Your task to perform on an android device: Open my contact list Image 0: 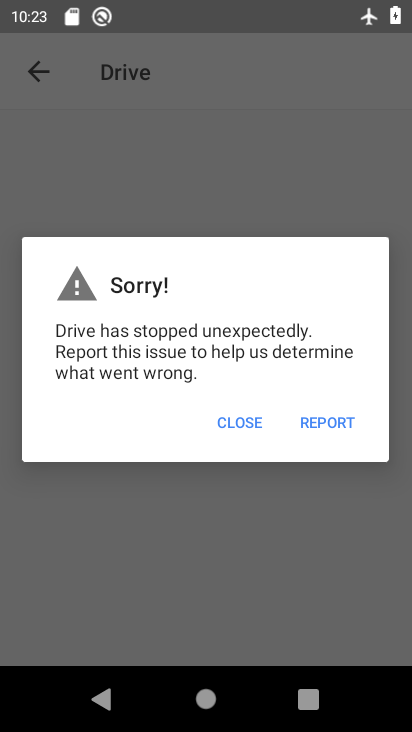
Step 0: press home button
Your task to perform on an android device: Open my contact list Image 1: 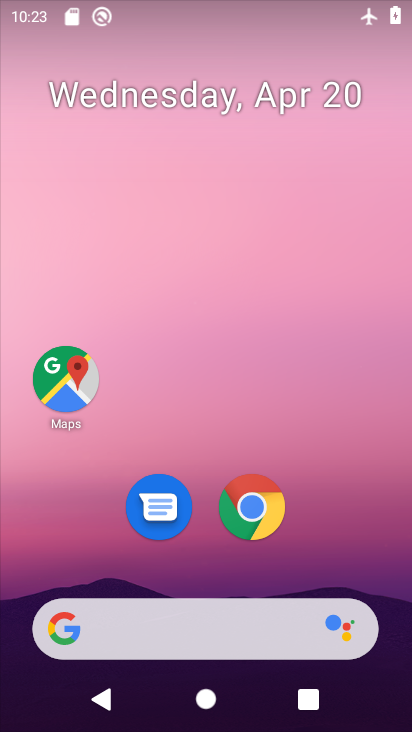
Step 1: drag from (198, 546) to (206, 112)
Your task to perform on an android device: Open my contact list Image 2: 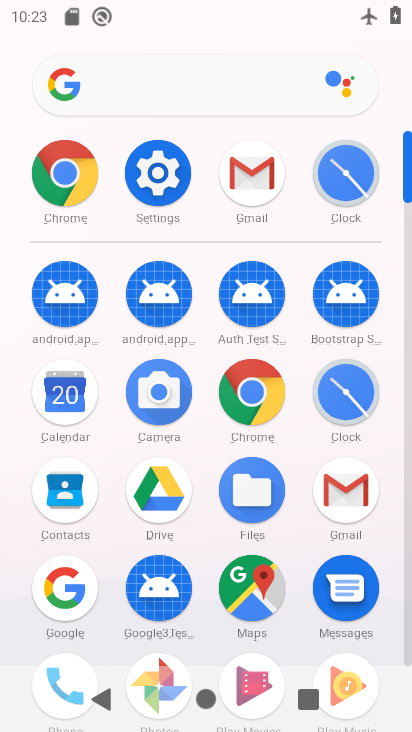
Step 2: click (70, 502)
Your task to perform on an android device: Open my contact list Image 3: 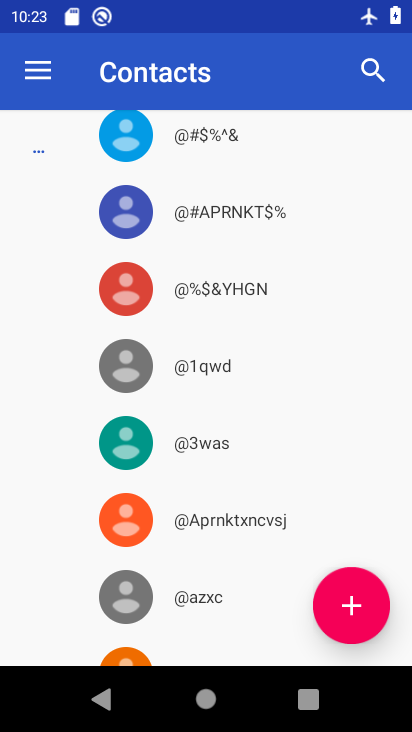
Step 3: task complete